Your task to perform on an android device: open wifi settings Image 0: 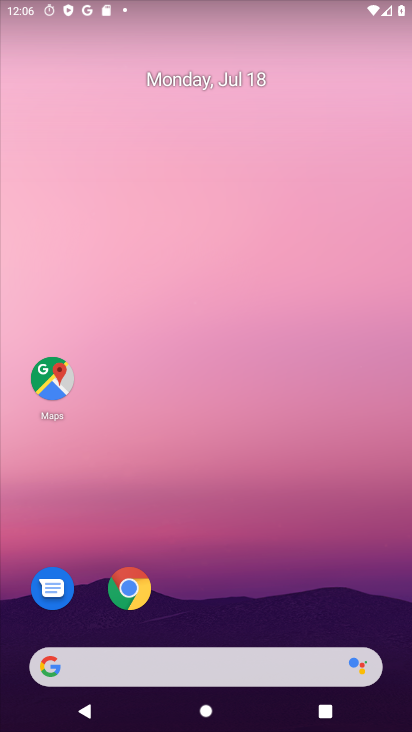
Step 0: drag from (244, 548) to (241, 176)
Your task to perform on an android device: open wifi settings Image 1: 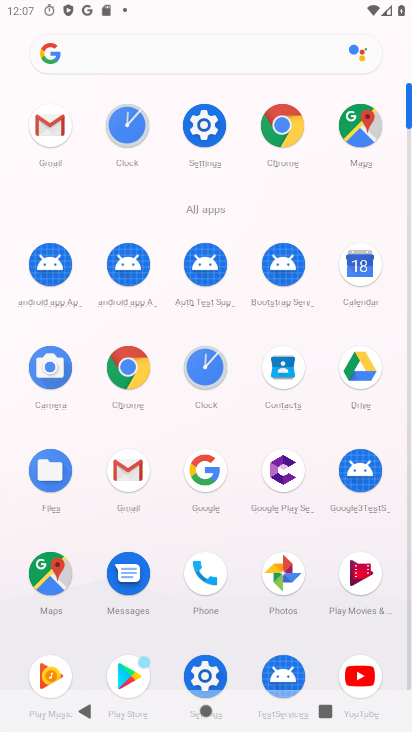
Step 1: click (212, 139)
Your task to perform on an android device: open wifi settings Image 2: 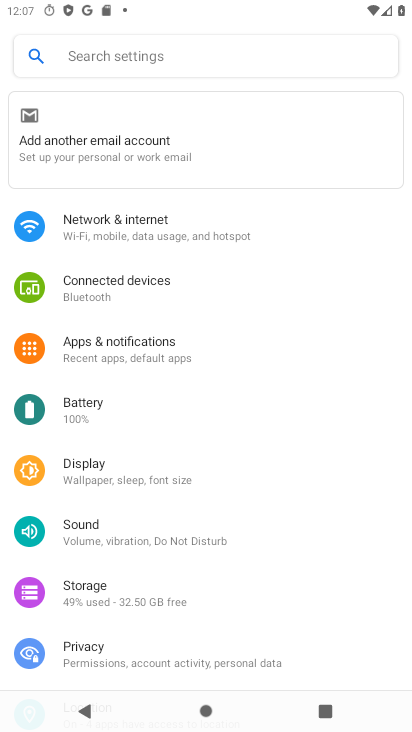
Step 2: click (172, 245)
Your task to perform on an android device: open wifi settings Image 3: 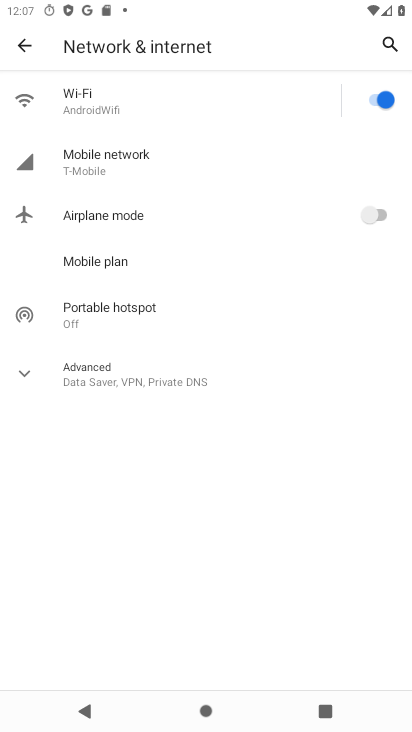
Step 3: click (148, 109)
Your task to perform on an android device: open wifi settings Image 4: 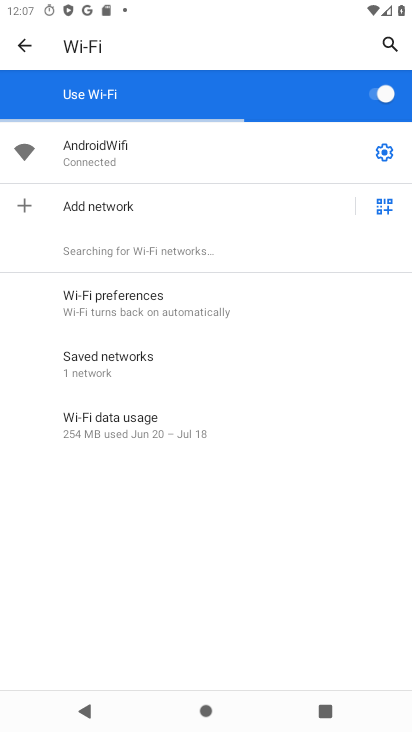
Step 4: task complete